Your task to perform on an android device: Go to settings Image 0: 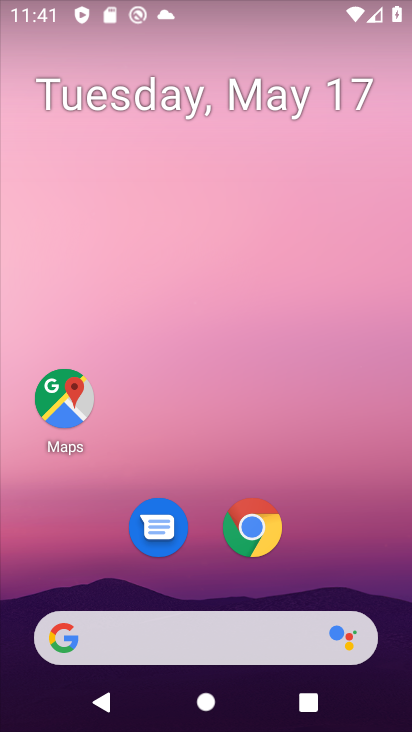
Step 0: drag from (304, 544) to (309, 106)
Your task to perform on an android device: Go to settings Image 1: 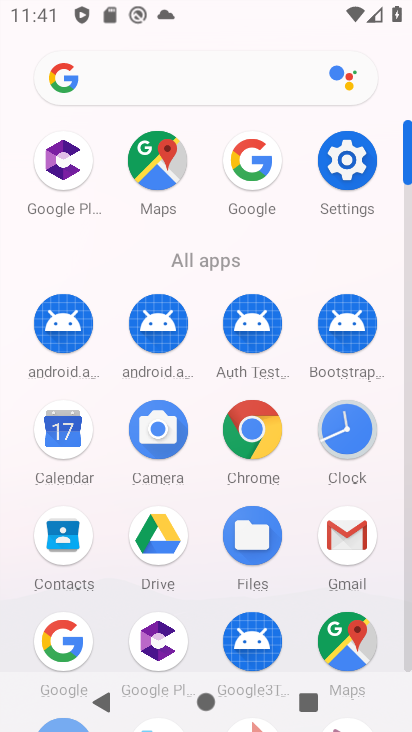
Step 1: click (338, 171)
Your task to perform on an android device: Go to settings Image 2: 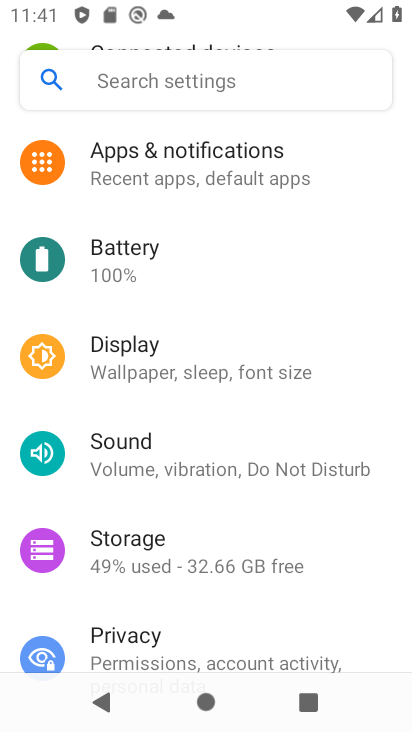
Step 2: task complete